Your task to perform on an android device: toggle priority inbox in the gmail app Image 0: 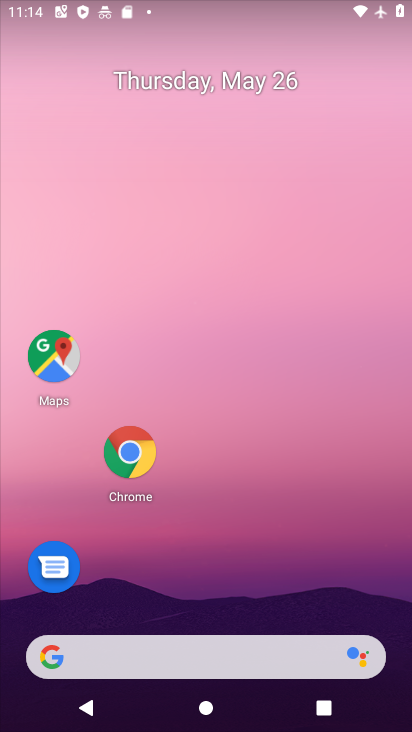
Step 0: press home button
Your task to perform on an android device: toggle priority inbox in the gmail app Image 1: 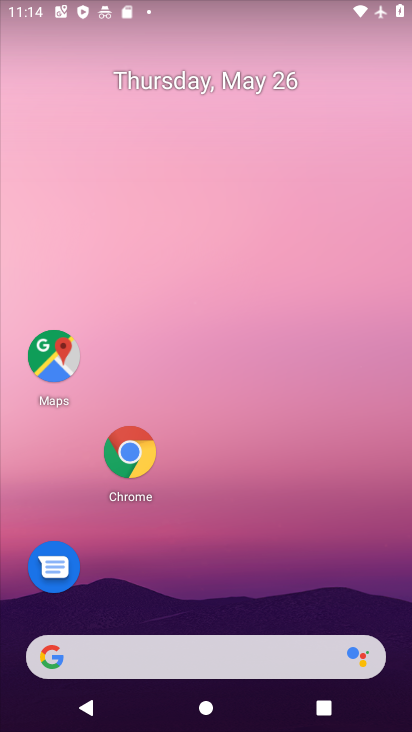
Step 1: drag from (200, 571) to (362, 124)
Your task to perform on an android device: toggle priority inbox in the gmail app Image 2: 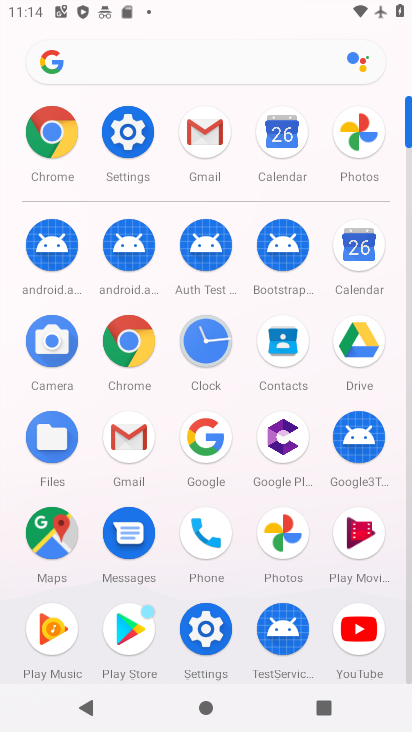
Step 2: click (211, 141)
Your task to perform on an android device: toggle priority inbox in the gmail app Image 3: 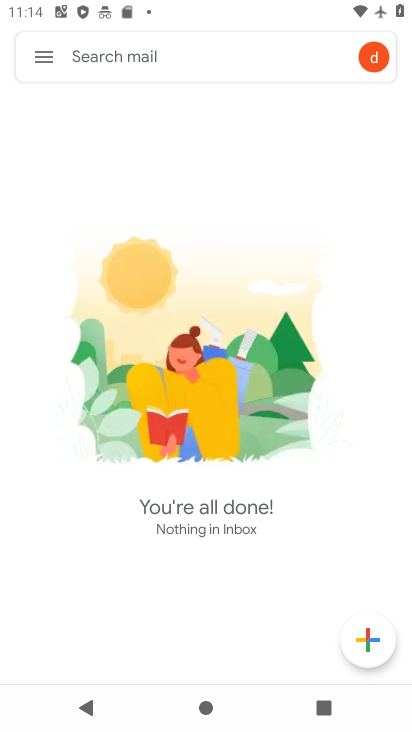
Step 3: click (52, 59)
Your task to perform on an android device: toggle priority inbox in the gmail app Image 4: 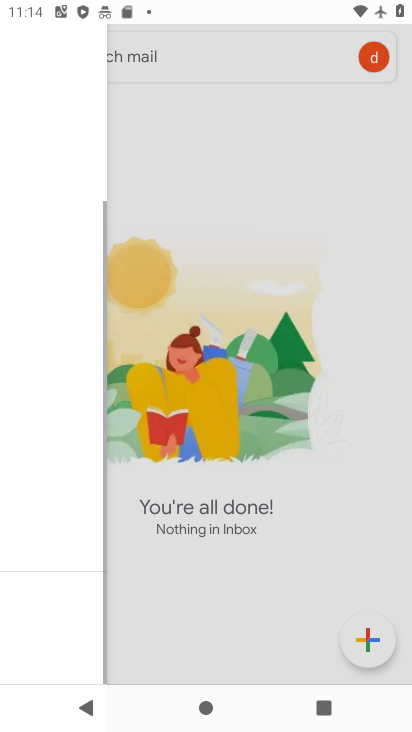
Step 4: click (45, 56)
Your task to perform on an android device: toggle priority inbox in the gmail app Image 5: 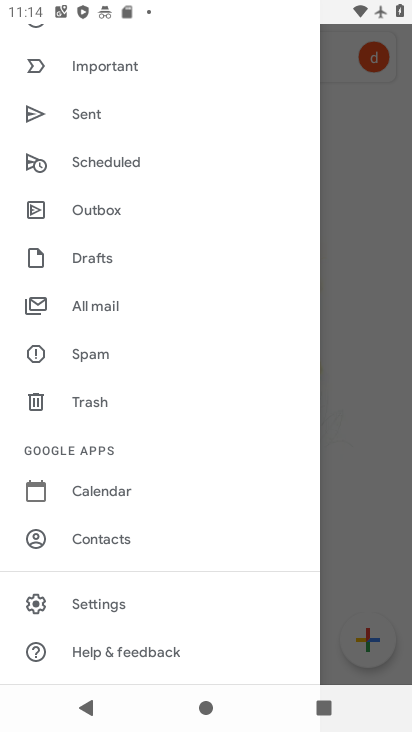
Step 5: click (120, 603)
Your task to perform on an android device: toggle priority inbox in the gmail app Image 6: 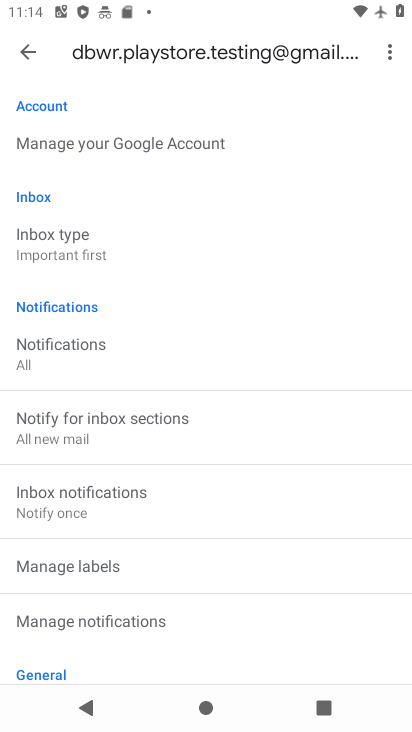
Step 6: click (72, 238)
Your task to perform on an android device: toggle priority inbox in the gmail app Image 7: 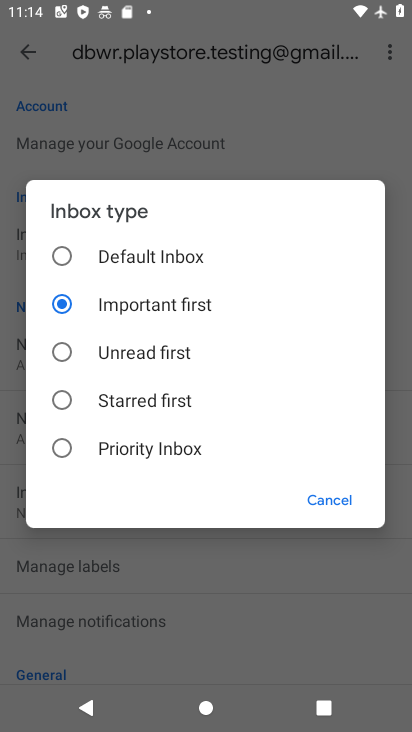
Step 7: click (57, 453)
Your task to perform on an android device: toggle priority inbox in the gmail app Image 8: 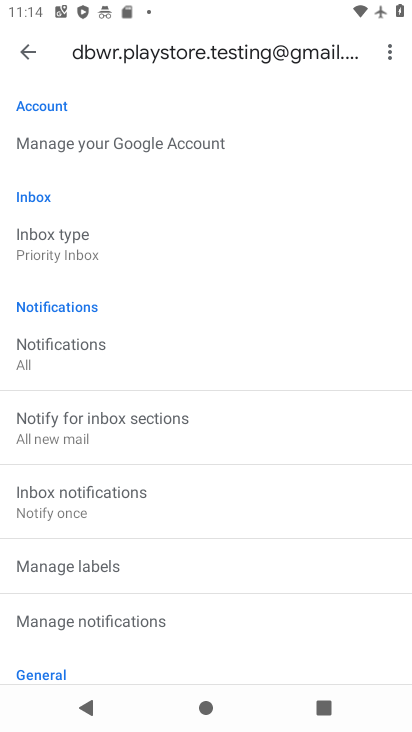
Step 8: task complete